Your task to perform on an android device: change the clock display to show seconds Image 0: 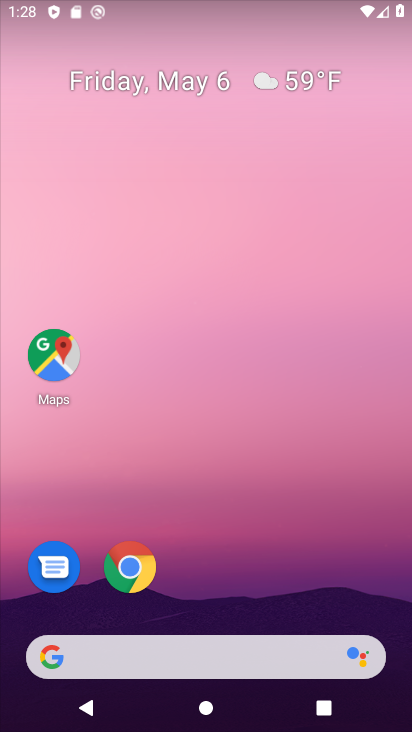
Step 0: drag from (220, 591) to (189, 38)
Your task to perform on an android device: change the clock display to show seconds Image 1: 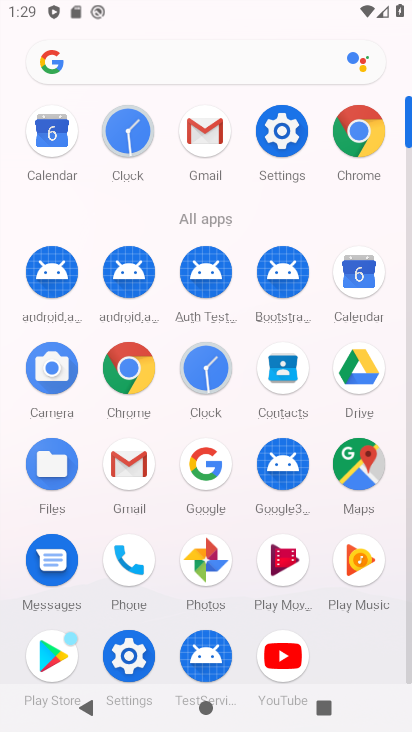
Step 1: click (204, 362)
Your task to perform on an android device: change the clock display to show seconds Image 2: 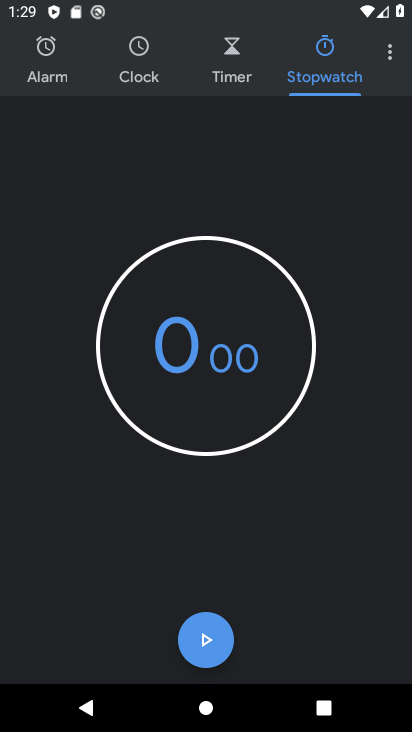
Step 2: click (393, 66)
Your task to perform on an android device: change the clock display to show seconds Image 3: 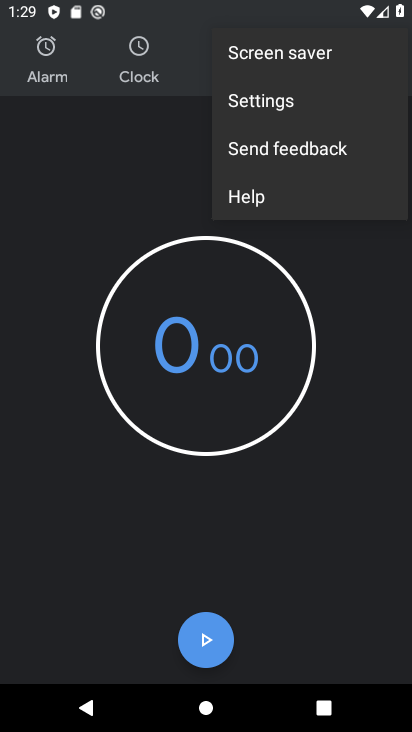
Step 3: click (290, 111)
Your task to perform on an android device: change the clock display to show seconds Image 4: 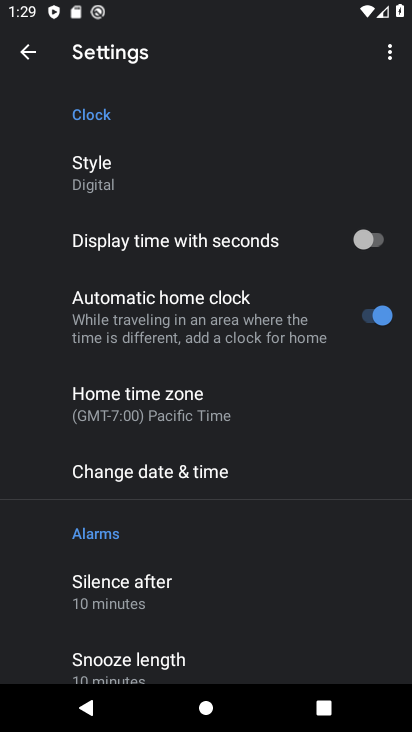
Step 4: drag from (178, 581) to (164, 394)
Your task to perform on an android device: change the clock display to show seconds Image 5: 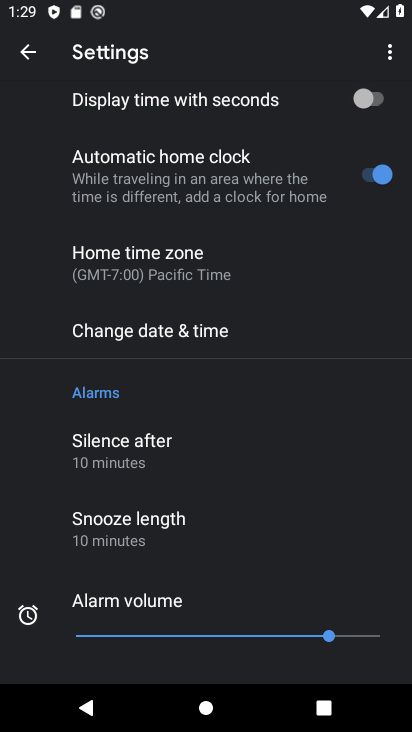
Step 5: click (368, 96)
Your task to perform on an android device: change the clock display to show seconds Image 6: 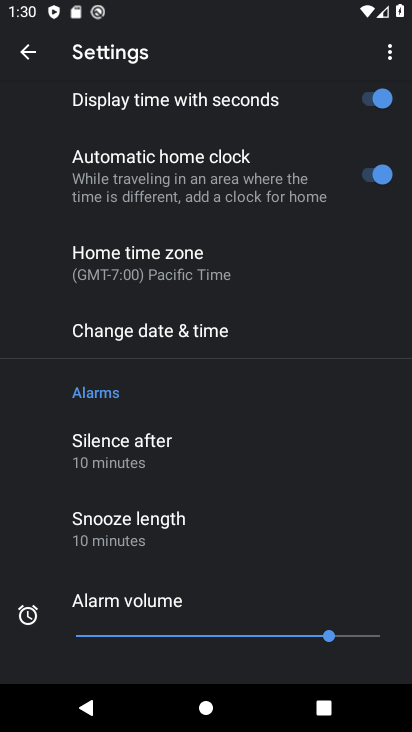
Step 6: task complete